Your task to perform on an android device: Open wifi settings Image 0: 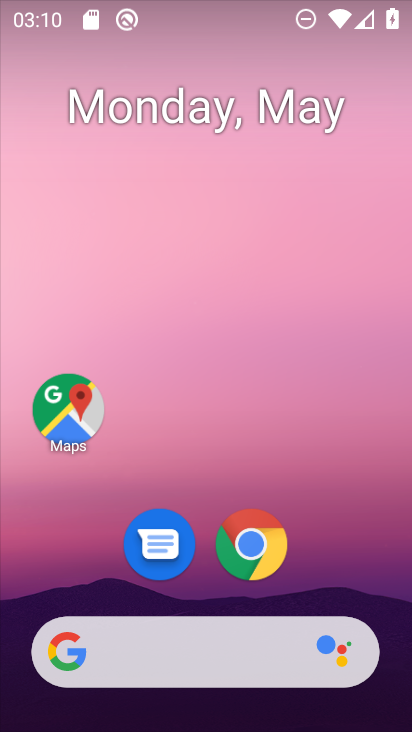
Step 0: drag from (359, 592) to (375, 198)
Your task to perform on an android device: Open wifi settings Image 1: 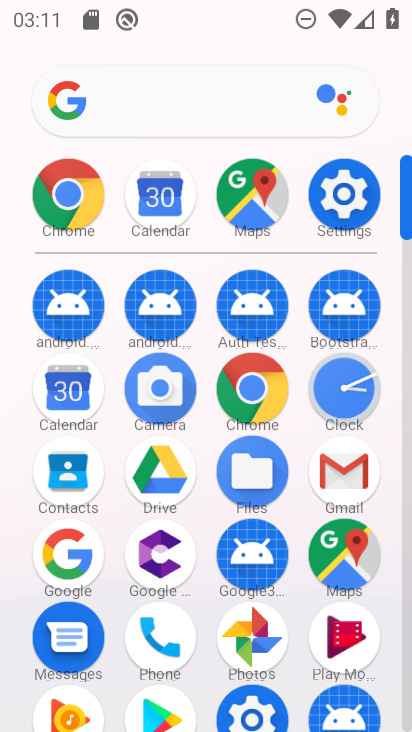
Step 1: click (349, 212)
Your task to perform on an android device: Open wifi settings Image 2: 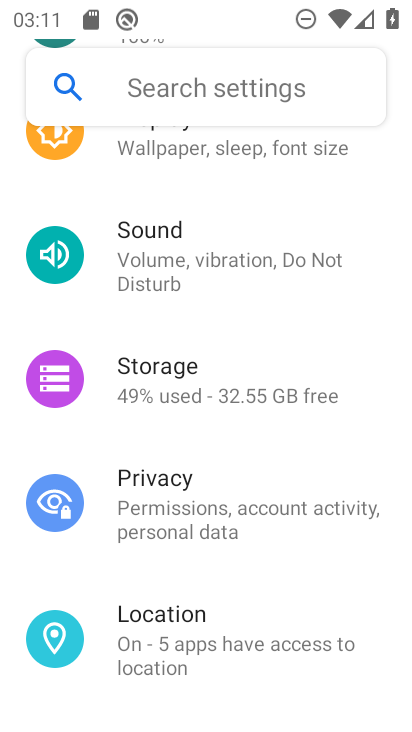
Step 2: drag from (366, 254) to (353, 385)
Your task to perform on an android device: Open wifi settings Image 3: 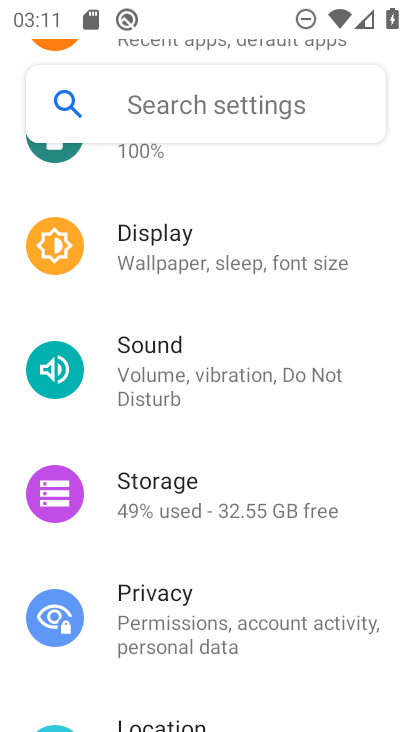
Step 3: drag from (371, 217) to (364, 386)
Your task to perform on an android device: Open wifi settings Image 4: 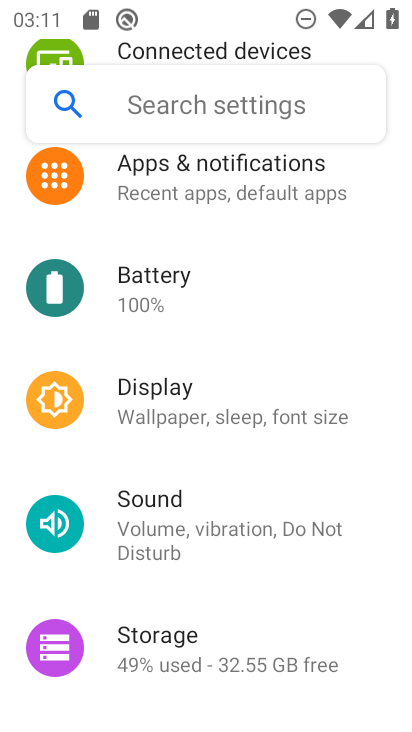
Step 4: drag from (359, 298) to (355, 433)
Your task to perform on an android device: Open wifi settings Image 5: 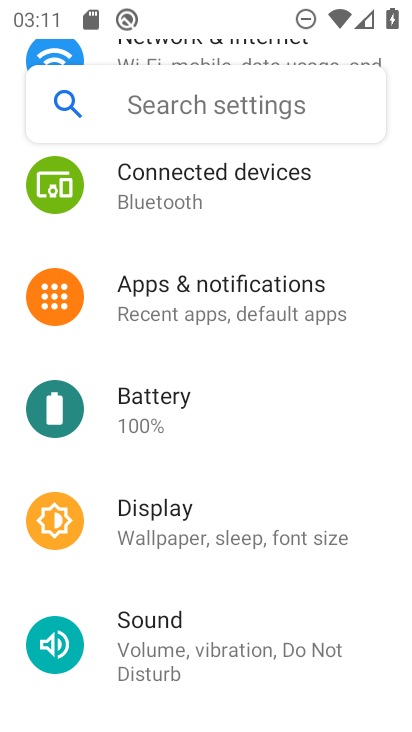
Step 5: drag from (357, 224) to (374, 353)
Your task to perform on an android device: Open wifi settings Image 6: 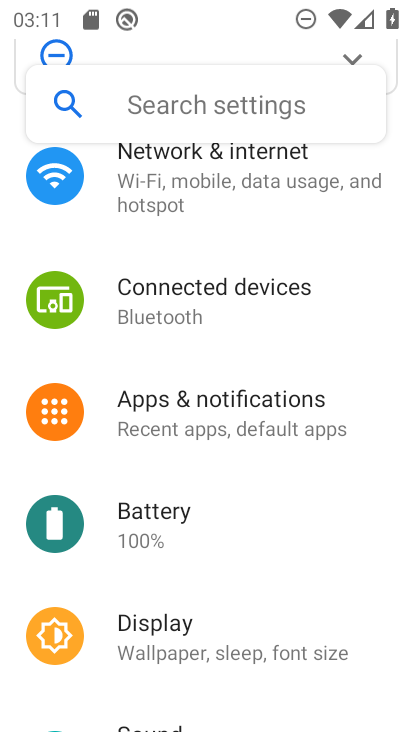
Step 6: drag from (363, 250) to (363, 379)
Your task to perform on an android device: Open wifi settings Image 7: 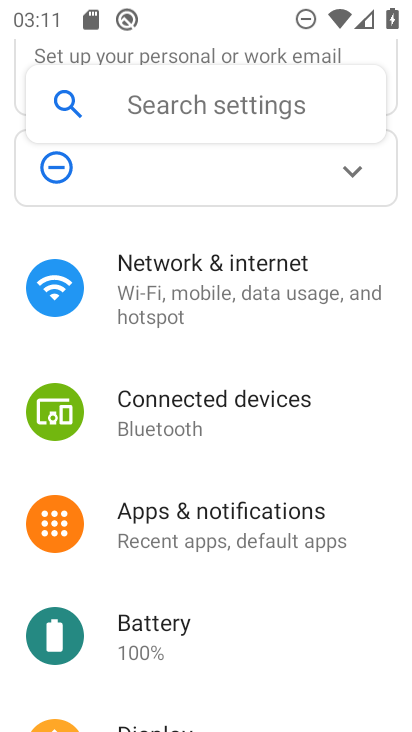
Step 7: click (310, 295)
Your task to perform on an android device: Open wifi settings Image 8: 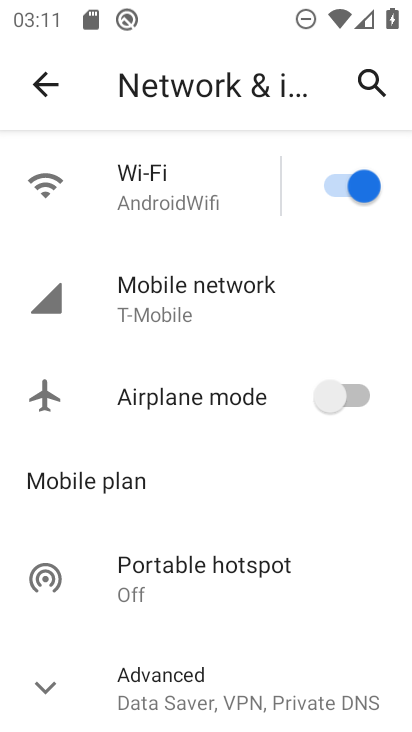
Step 8: click (158, 197)
Your task to perform on an android device: Open wifi settings Image 9: 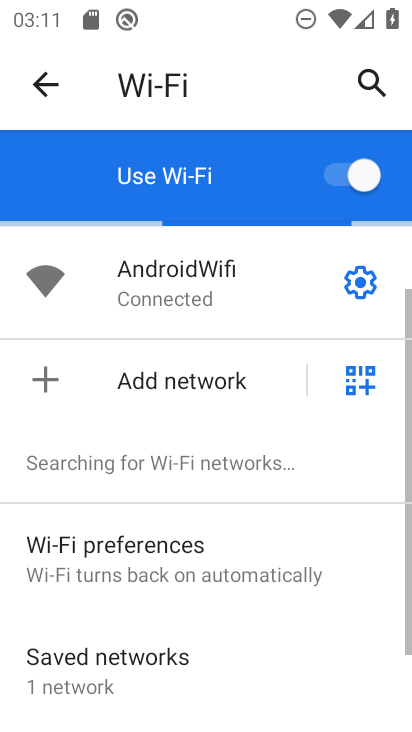
Step 9: task complete